Your task to perform on an android device: open app "Venmo" (install if not already installed) and enter user name: "bleedings@gmail.com" and password: "copied" Image 0: 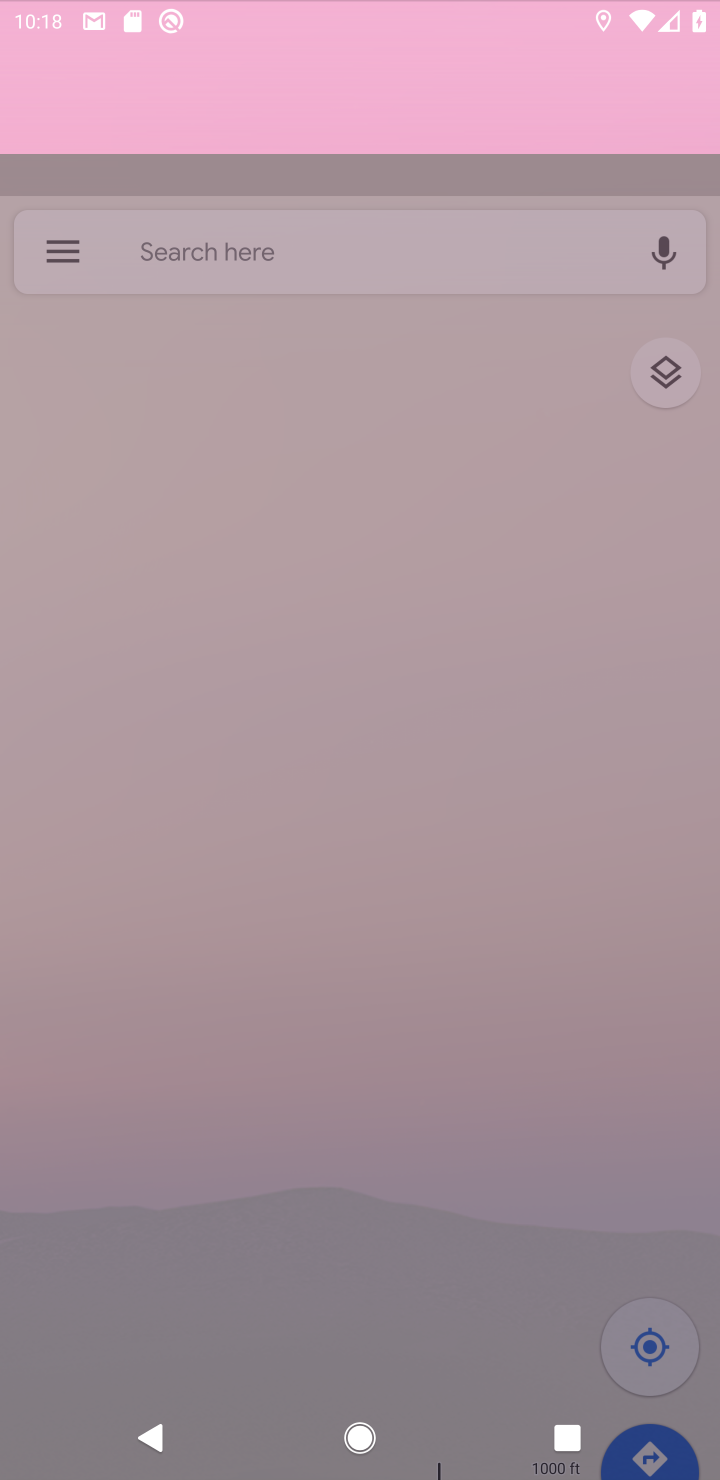
Step 0: press home button
Your task to perform on an android device: open app "Venmo" (install if not already installed) and enter user name: "bleedings@gmail.com" and password: "copied" Image 1: 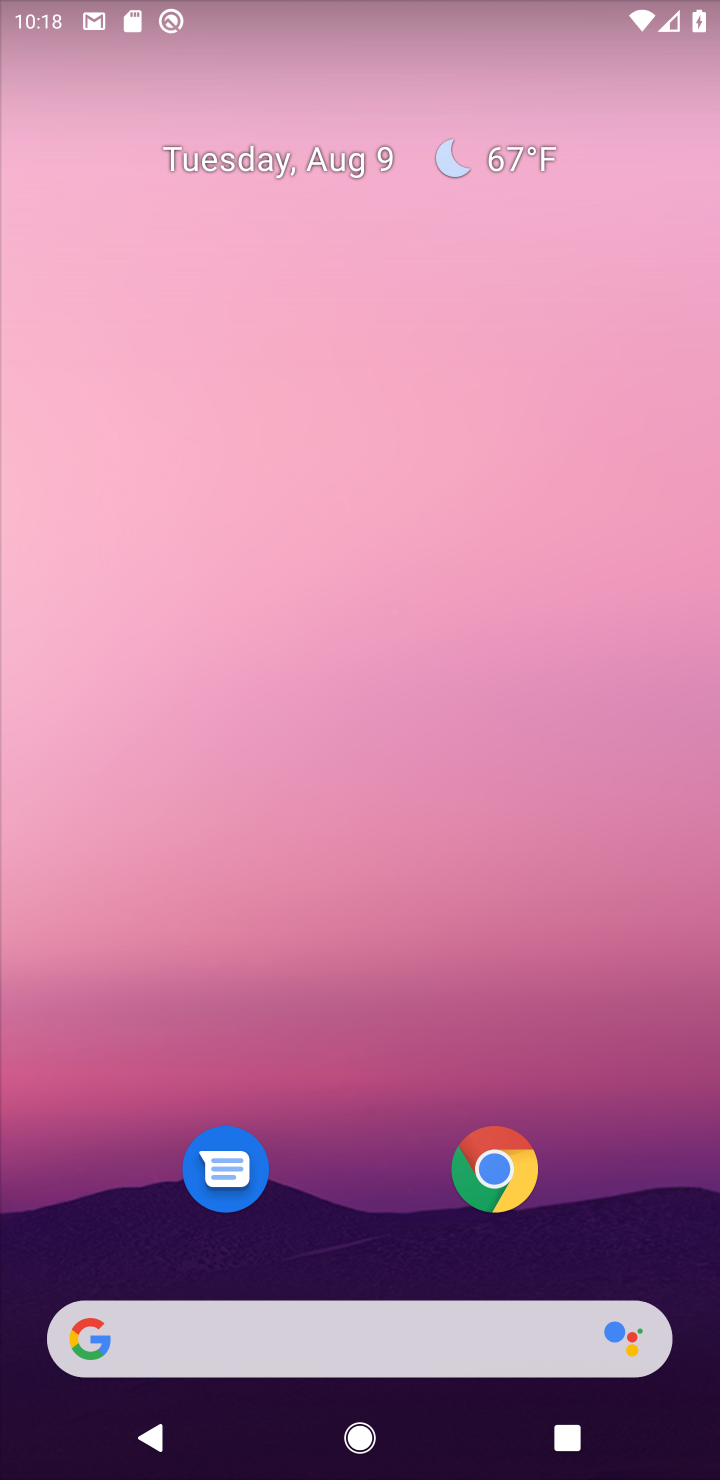
Step 1: drag from (375, 1146) to (418, 176)
Your task to perform on an android device: open app "Venmo" (install if not already installed) and enter user name: "bleedings@gmail.com" and password: "copied" Image 2: 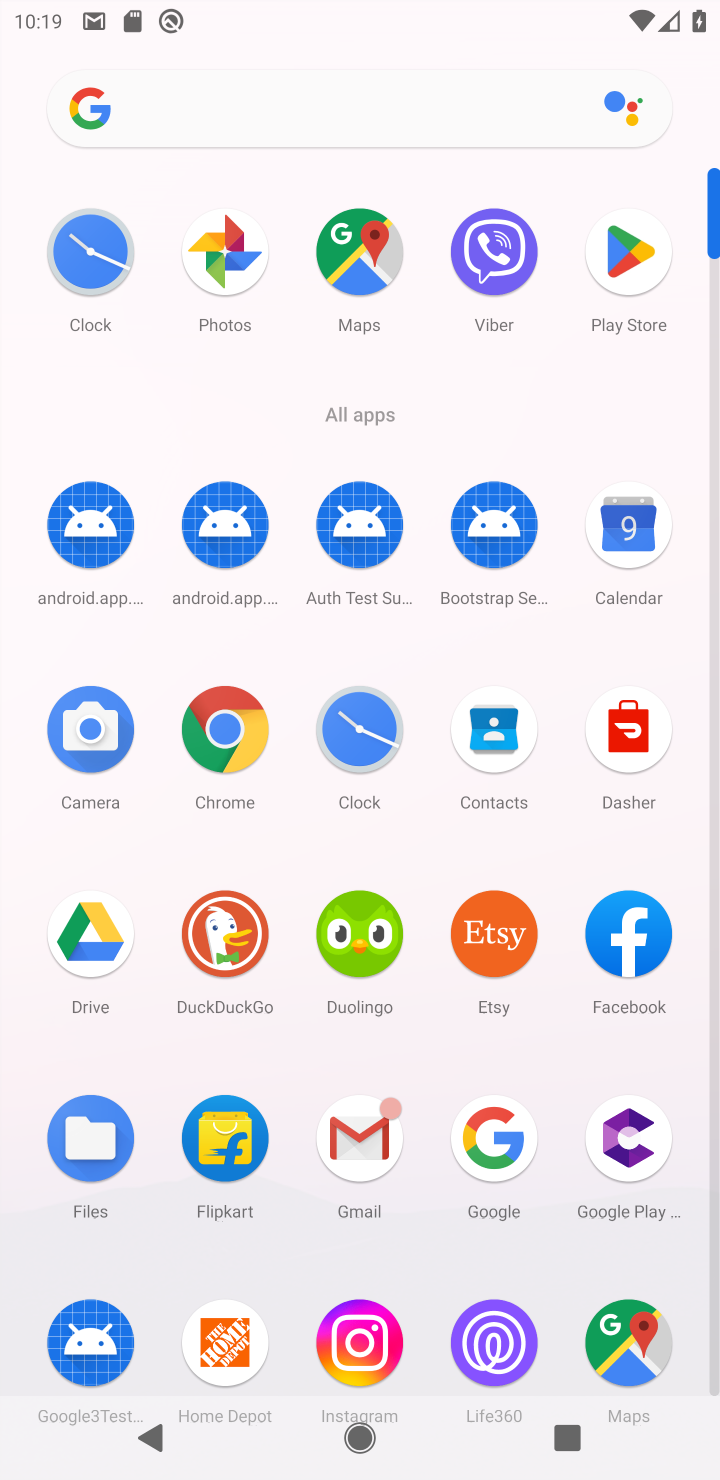
Step 2: click (630, 237)
Your task to perform on an android device: open app "Venmo" (install if not already installed) and enter user name: "bleedings@gmail.com" and password: "copied" Image 3: 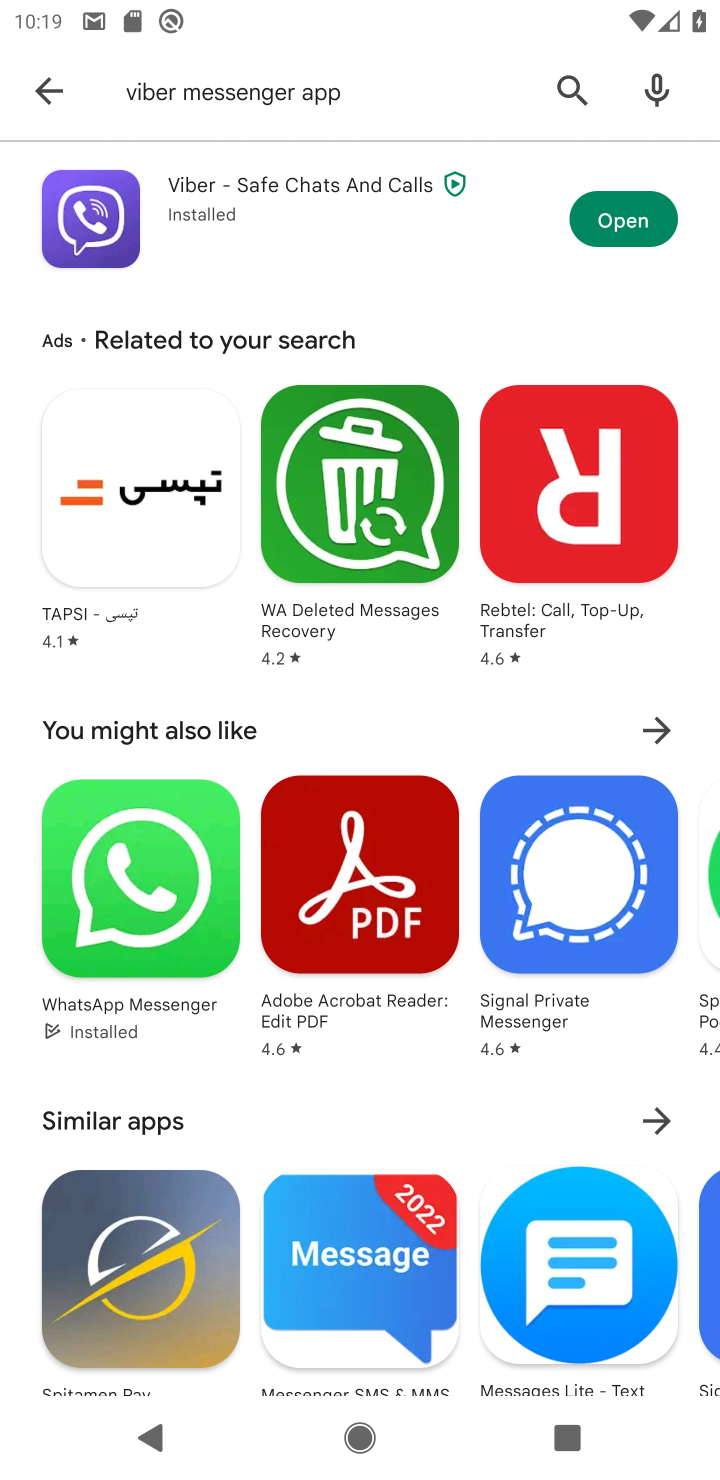
Step 3: click (558, 92)
Your task to perform on an android device: open app "Venmo" (install if not already installed) and enter user name: "bleedings@gmail.com" and password: "copied" Image 4: 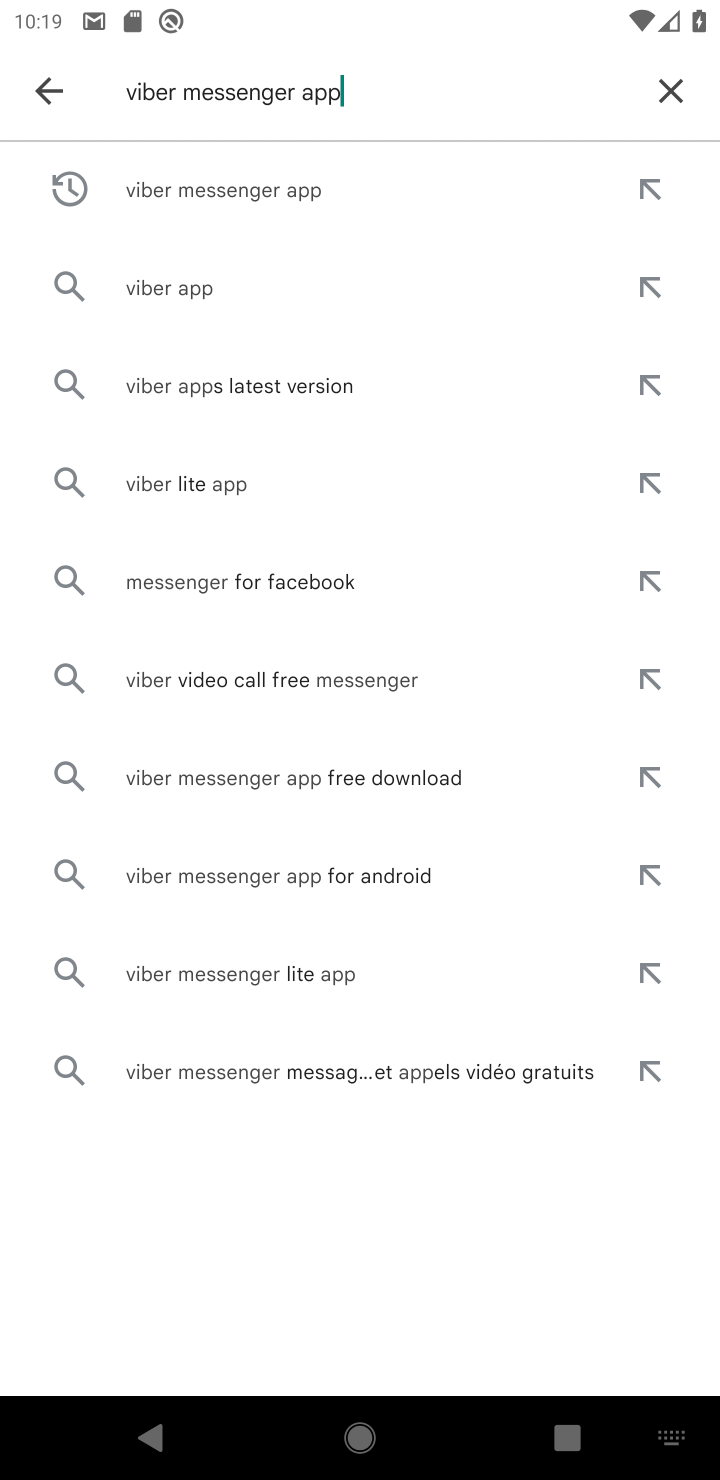
Step 4: click (685, 91)
Your task to perform on an android device: open app "Venmo" (install if not already installed) and enter user name: "bleedings@gmail.com" and password: "copied" Image 5: 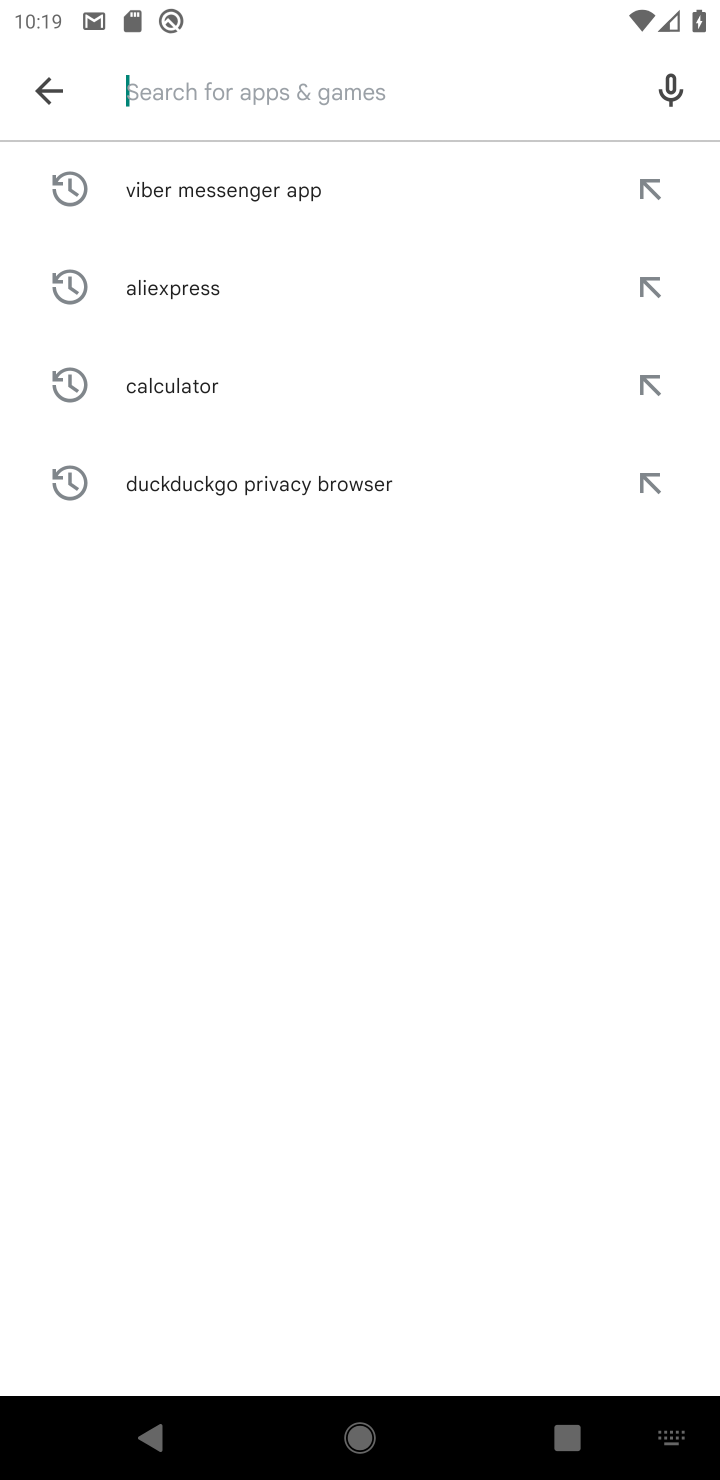
Step 5: type "venmo"
Your task to perform on an android device: open app "Venmo" (install if not already installed) and enter user name: "bleedings@gmail.com" and password: "copied" Image 6: 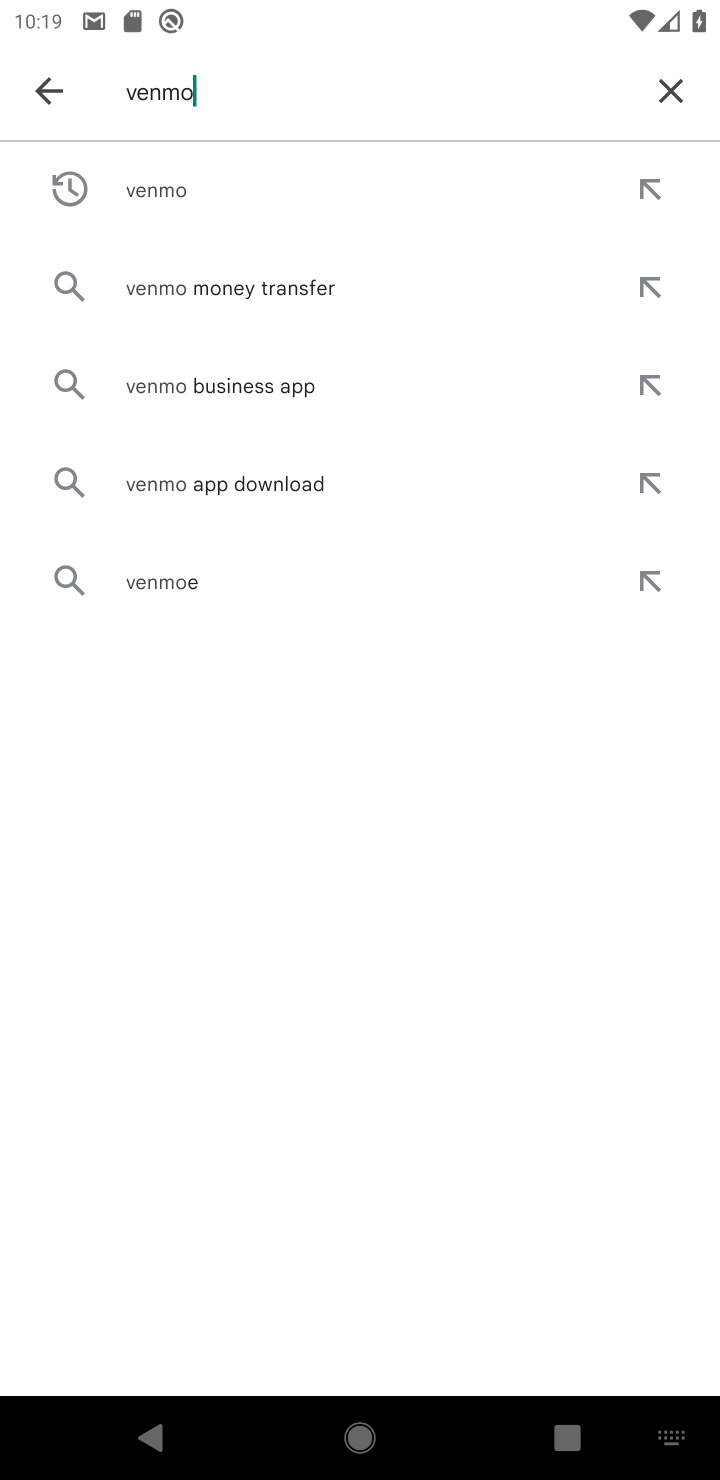
Step 6: click (207, 180)
Your task to perform on an android device: open app "Venmo" (install if not already installed) and enter user name: "bleedings@gmail.com" and password: "copied" Image 7: 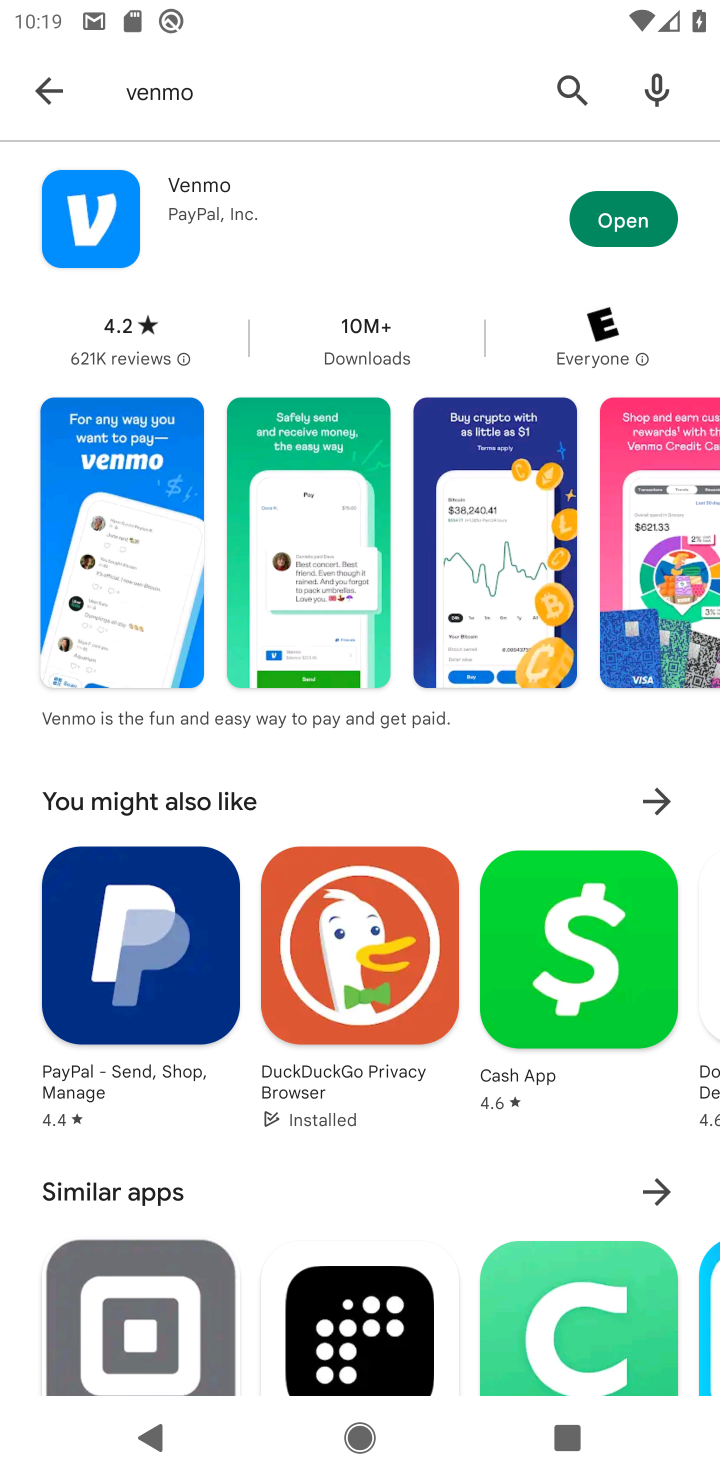
Step 7: click (634, 225)
Your task to perform on an android device: open app "Venmo" (install if not already installed) and enter user name: "bleedings@gmail.com" and password: "copied" Image 8: 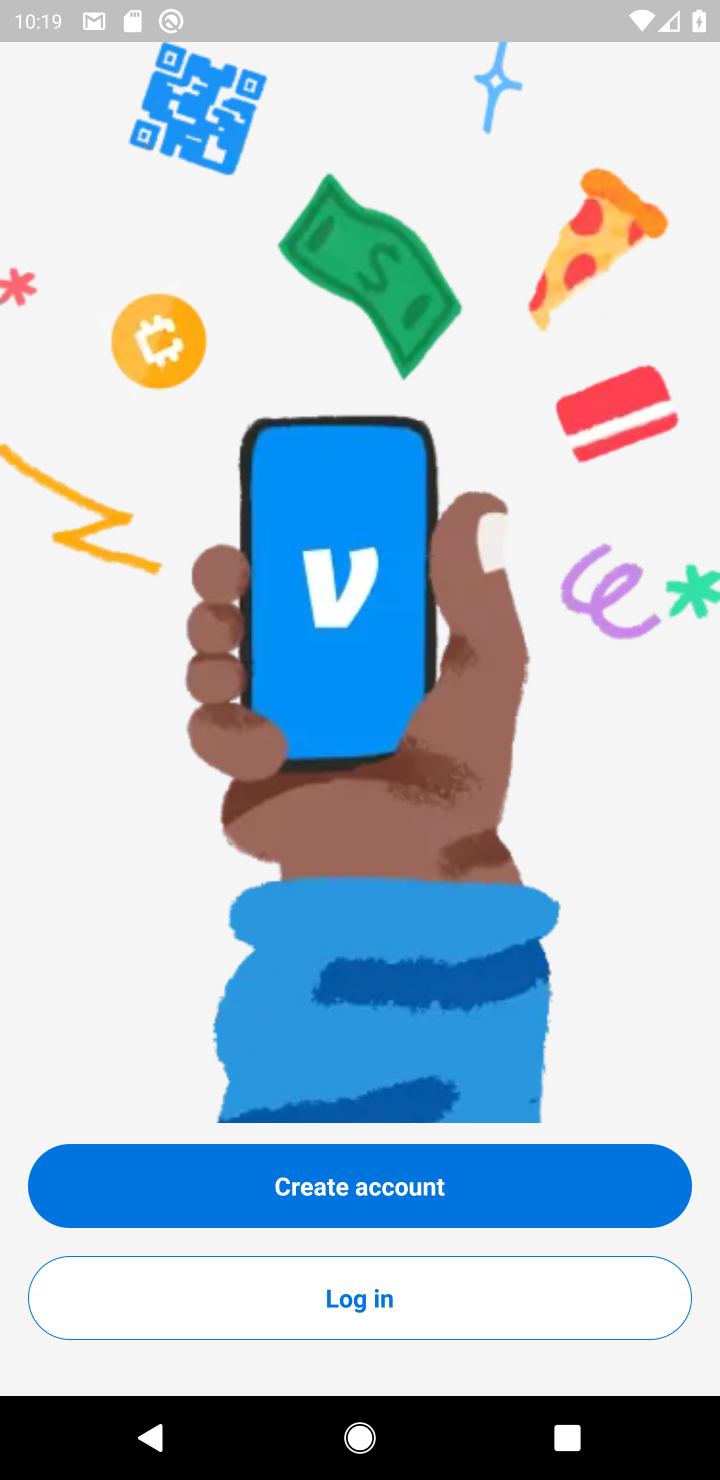
Step 8: click (445, 1294)
Your task to perform on an android device: open app "Venmo" (install if not already installed) and enter user name: "bleedings@gmail.com" and password: "copied" Image 9: 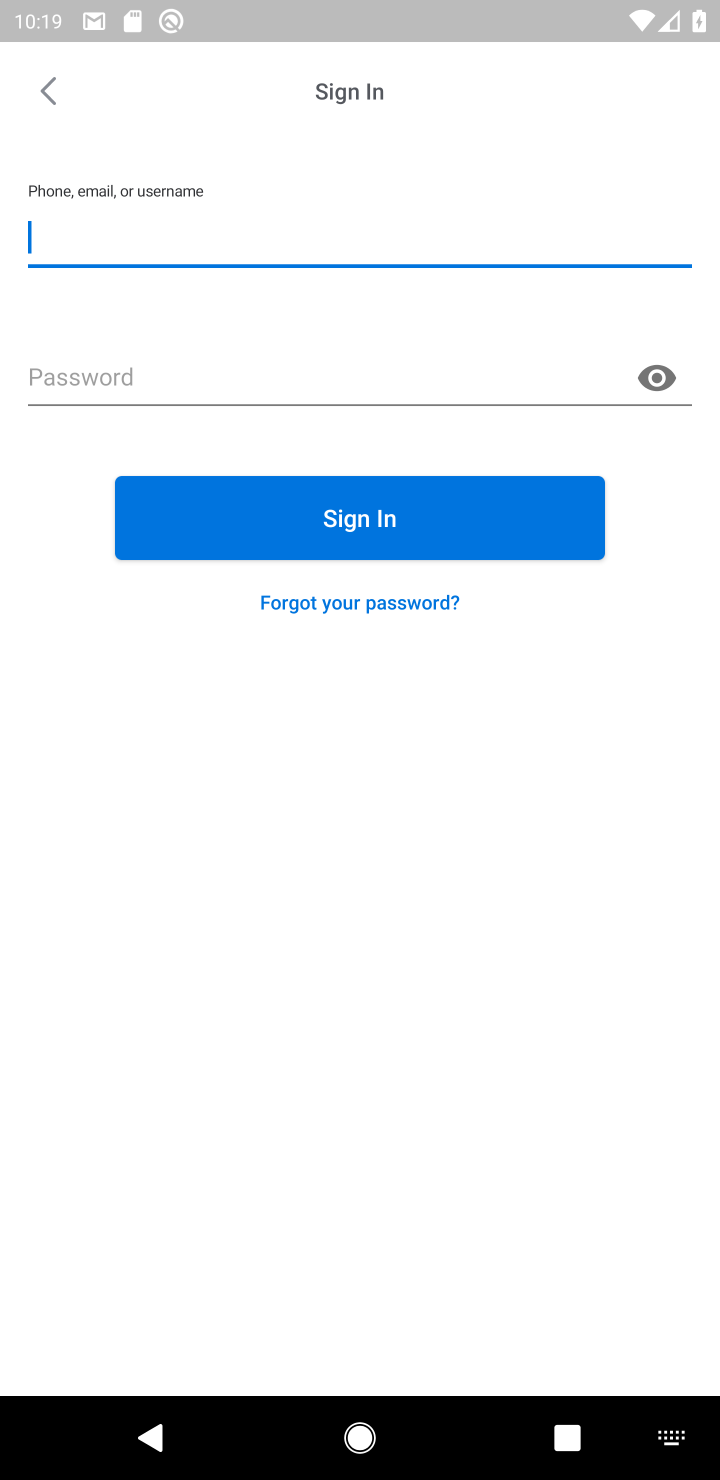
Step 9: click (204, 234)
Your task to perform on an android device: open app "Venmo" (install if not already installed) and enter user name: "bleedings@gmail.com" and password: "copied" Image 10: 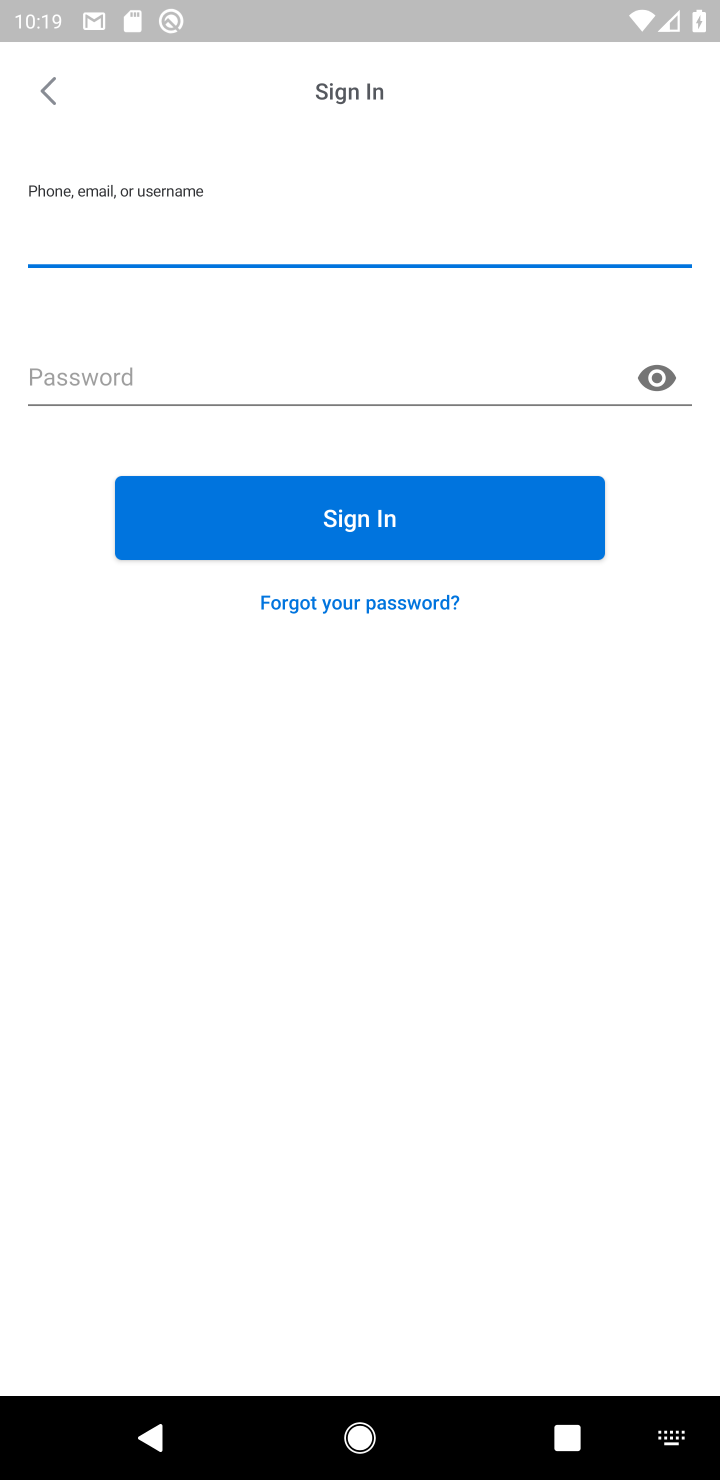
Step 10: type "bleedings@gmail.com"
Your task to perform on an android device: open app "Venmo" (install if not already installed) and enter user name: "bleedings@gmail.com" and password: "copied" Image 11: 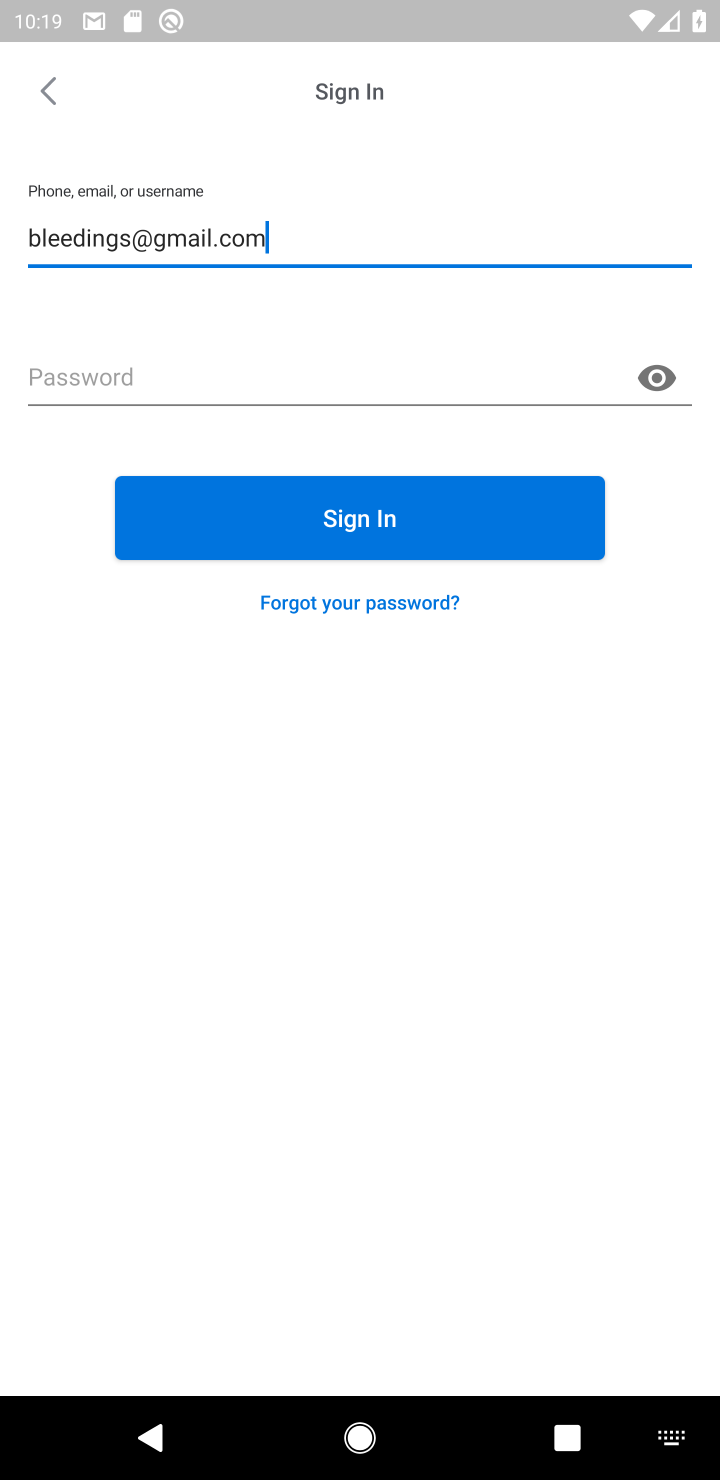
Step 11: click (141, 375)
Your task to perform on an android device: open app "Venmo" (install if not already installed) and enter user name: "bleedings@gmail.com" and password: "copied" Image 12: 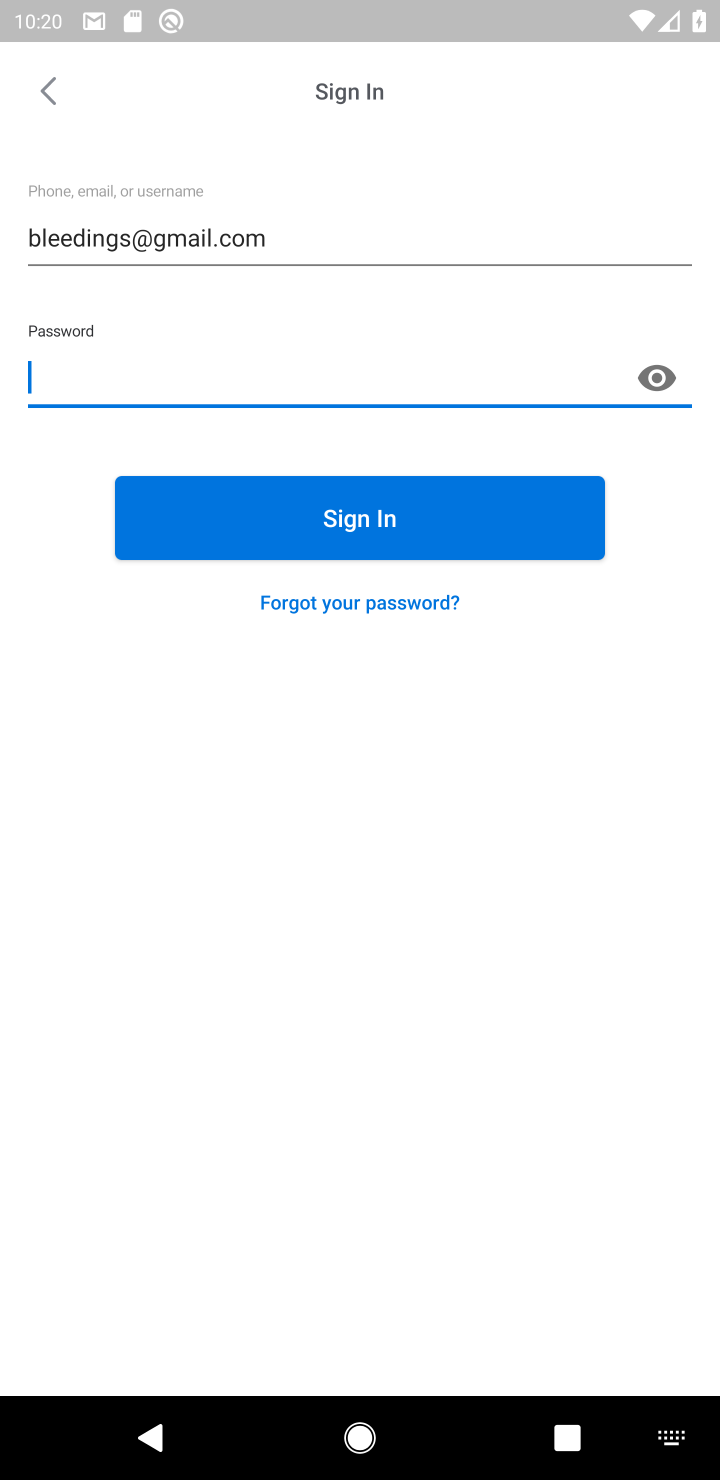
Step 12: press enter
Your task to perform on an android device: open app "Venmo" (install if not already installed) and enter user name: "bleedings@gmail.com" and password: "copied" Image 13: 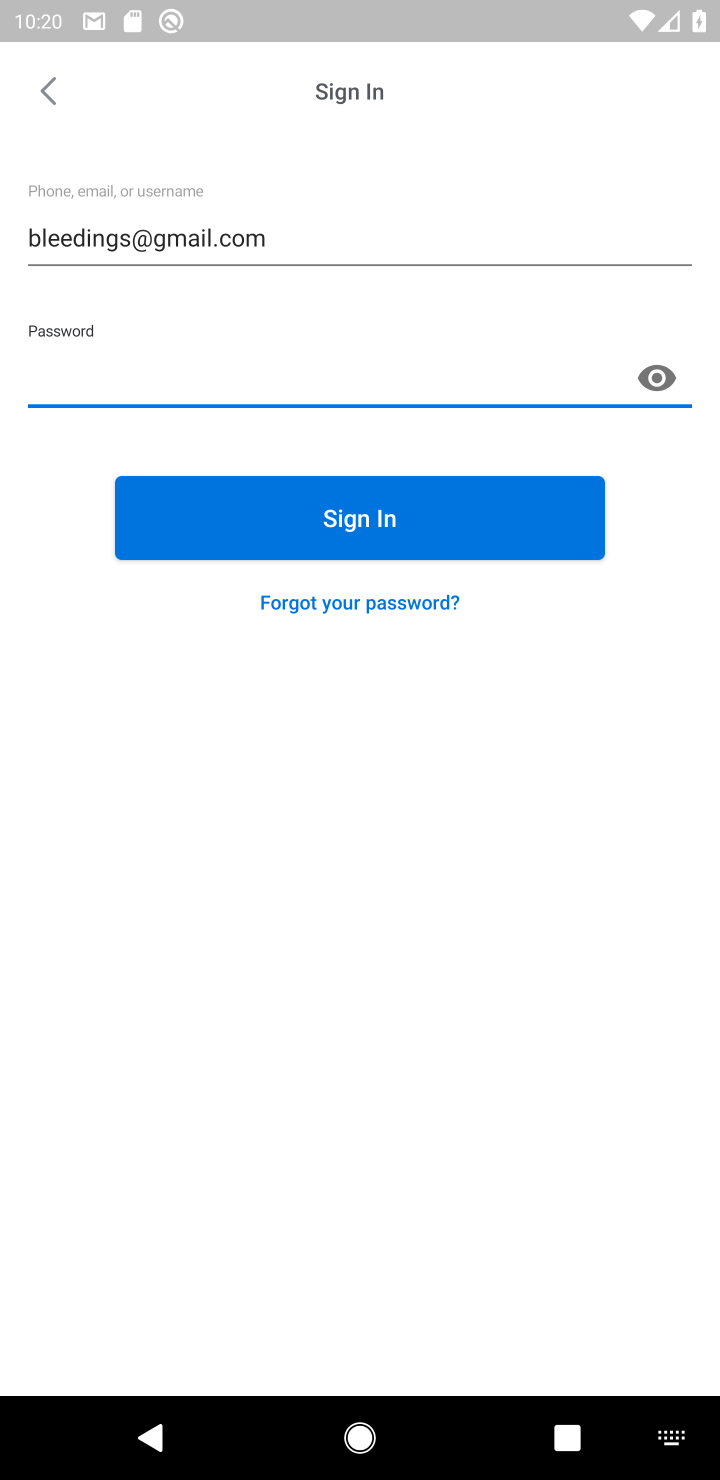
Step 13: type "copied"
Your task to perform on an android device: open app "Venmo" (install if not already installed) and enter user name: "bleedings@gmail.com" and password: "copied" Image 14: 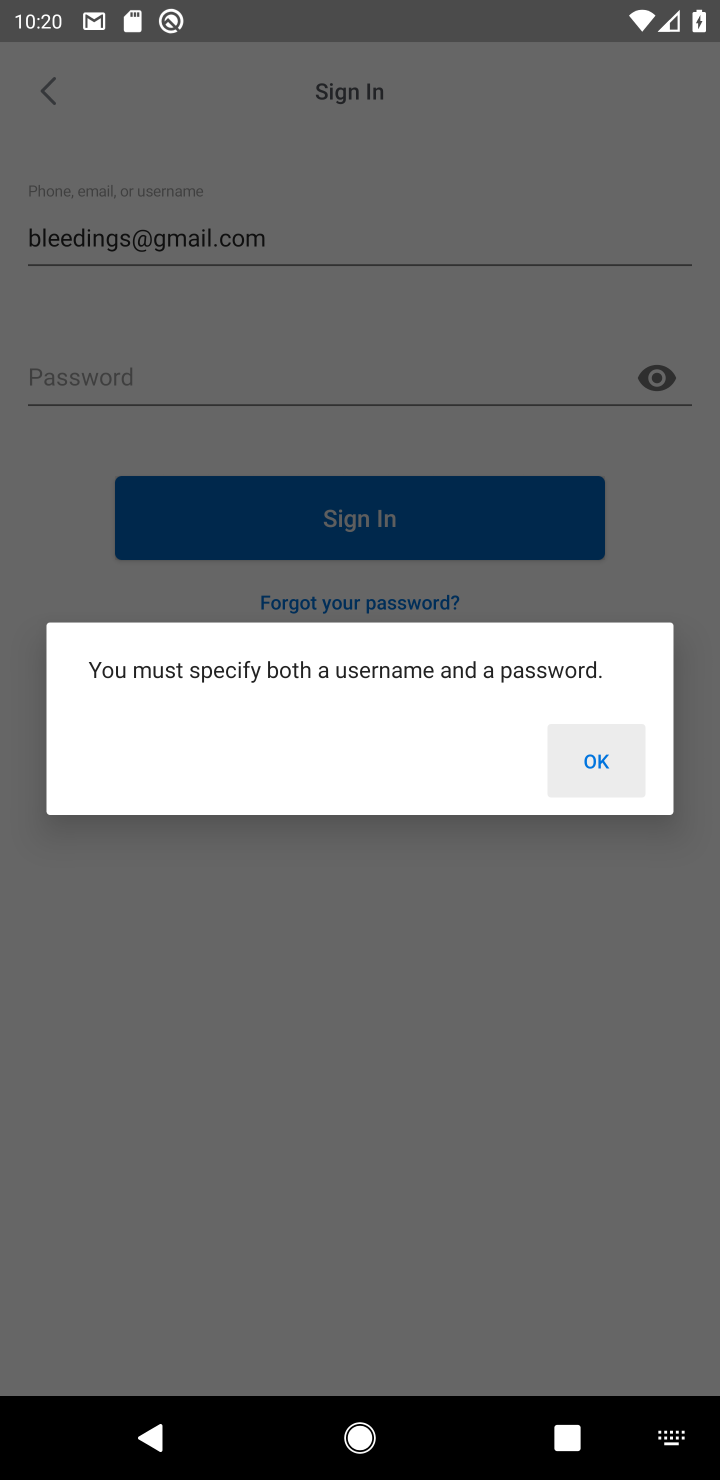
Step 14: click (582, 756)
Your task to perform on an android device: open app "Venmo" (install if not already installed) and enter user name: "bleedings@gmail.com" and password: "copied" Image 15: 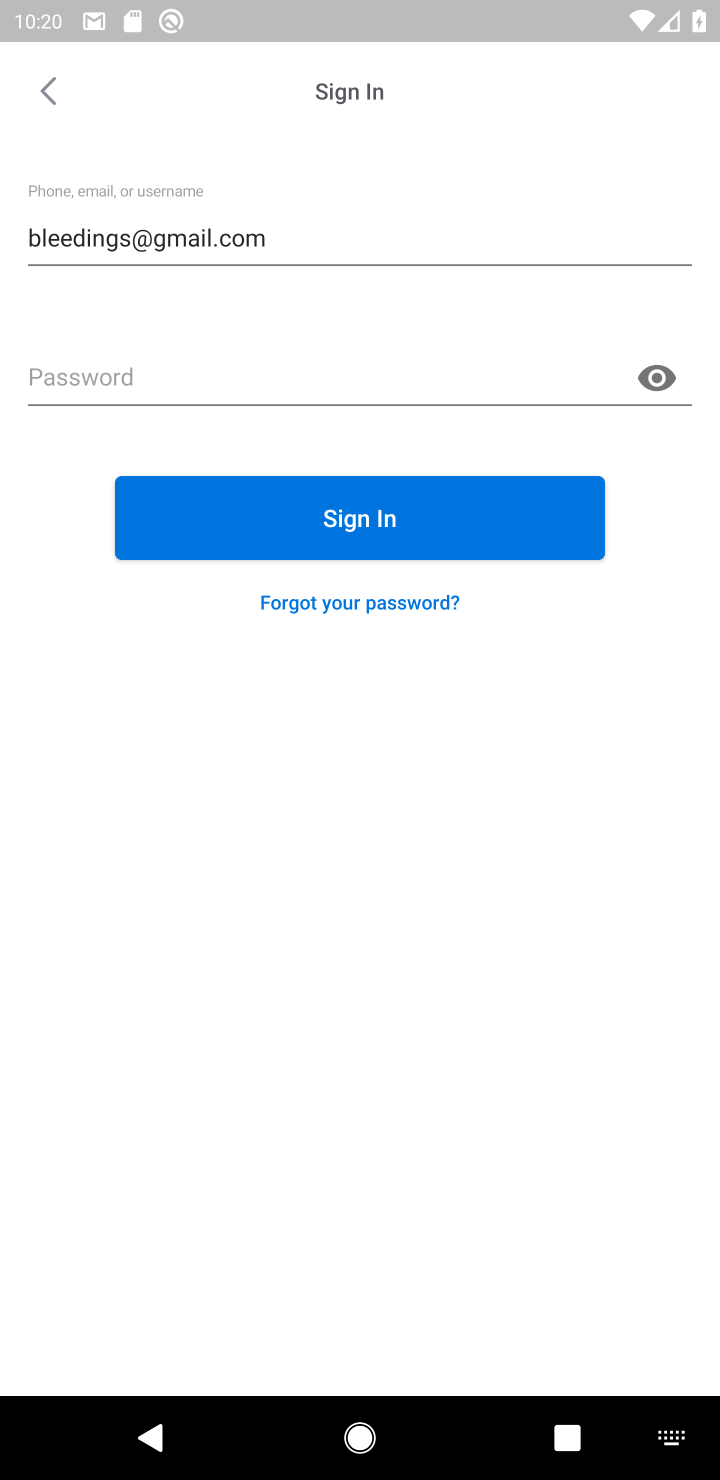
Step 15: click (164, 375)
Your task to perform on an android device: open app "Venmo" (install if not already installed) and enter user name: "bleedings@gmail.com" and password: "copied" Image 16: 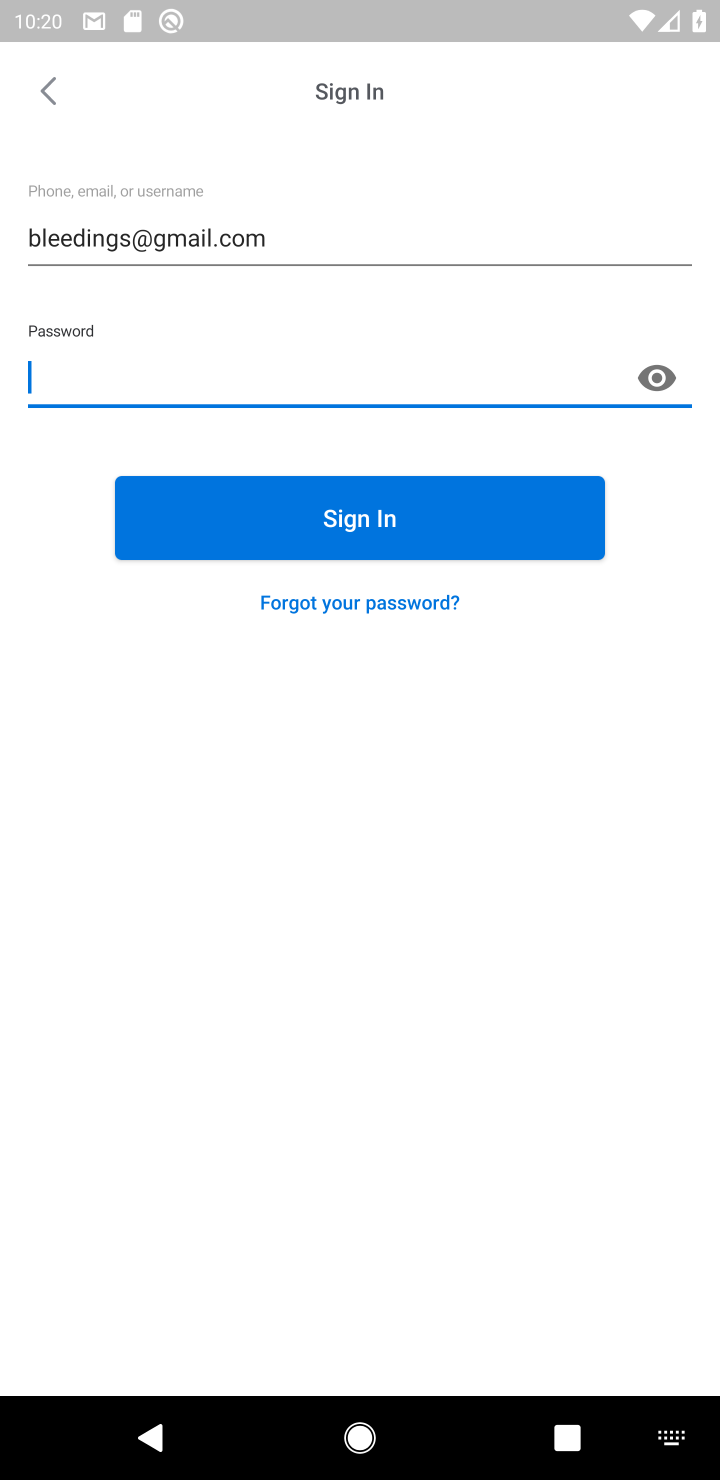
Step 16: press enter
Your task to perform on an android device: open app "Venmo" (install if not already installed) and enter user name: "bleedings@gmail.com" and password: "copied" Image 17: 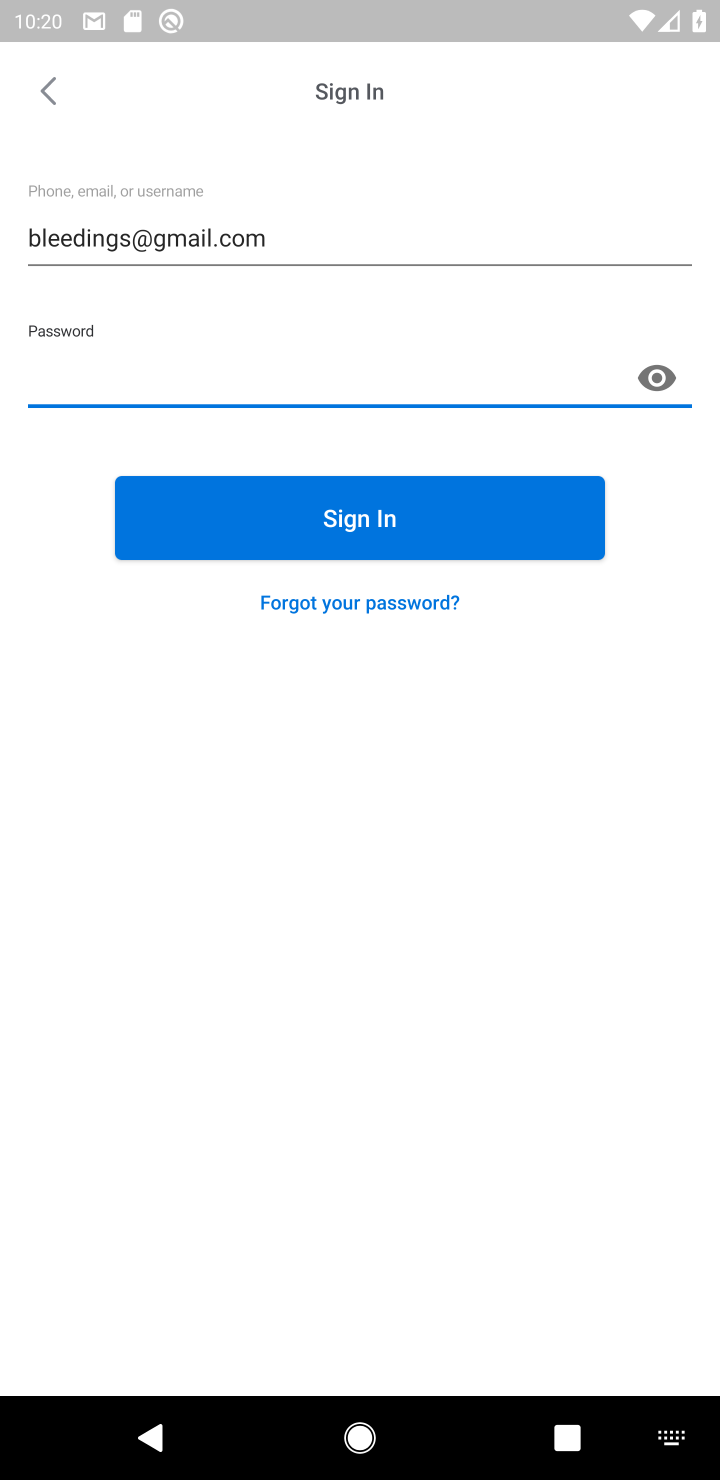
Step 17: type "copied"
Your task to perform on an android device: open app "Venmo" (install if not already installed) and enter user name: "bleedings@gmail.com" and password: "copied" Image 18: 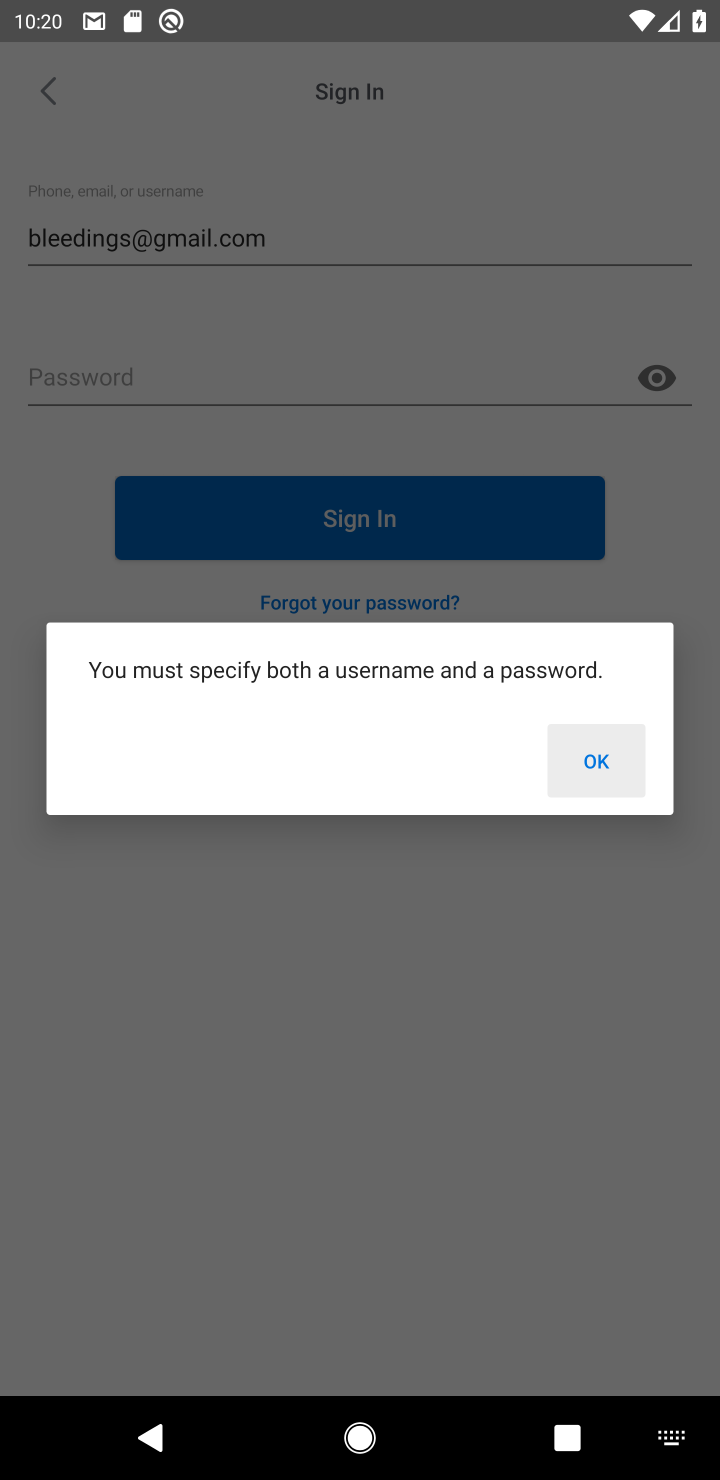
Step 18: task complete